Your task to perform on an android device: change the clock display to show seconds Image 0: 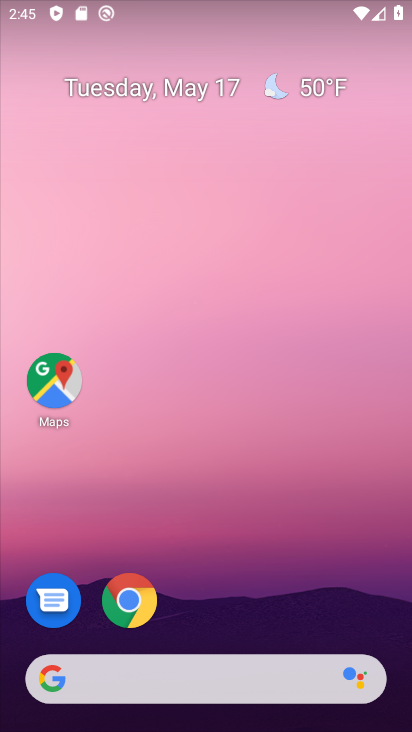
Step 0: drag from (248, 620) to (269, 265)
Your task to perform on an android device: change the clock display to show seconds Image 1: 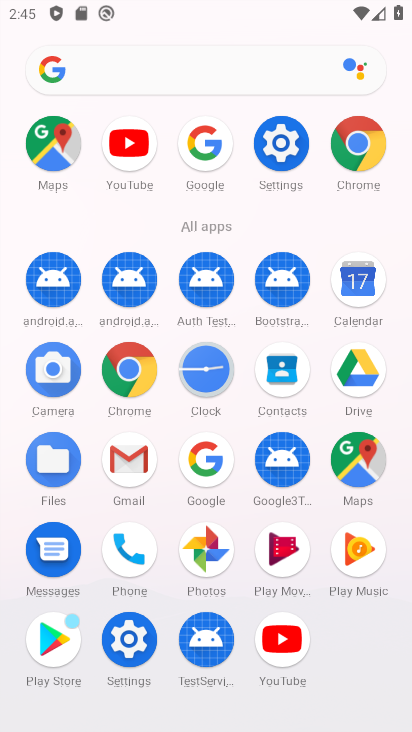
Step 1: click (200, 367)
Your task to perform on an android device: change the clock display to show seconds Image 2: 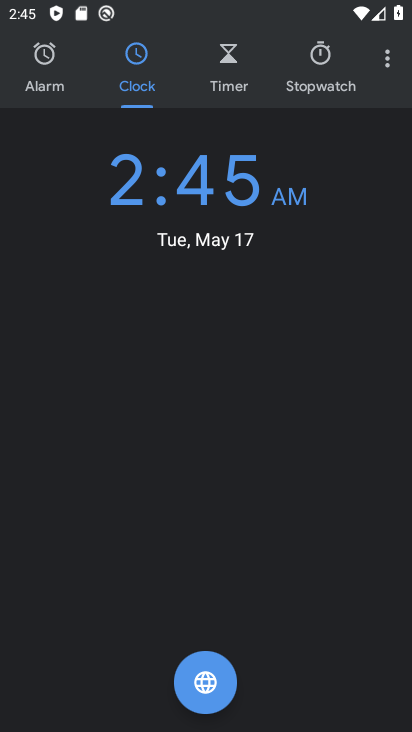
Step 2: click (384, 61)
Your task to perform on an android device: change the clock display to show seconds Image 3: 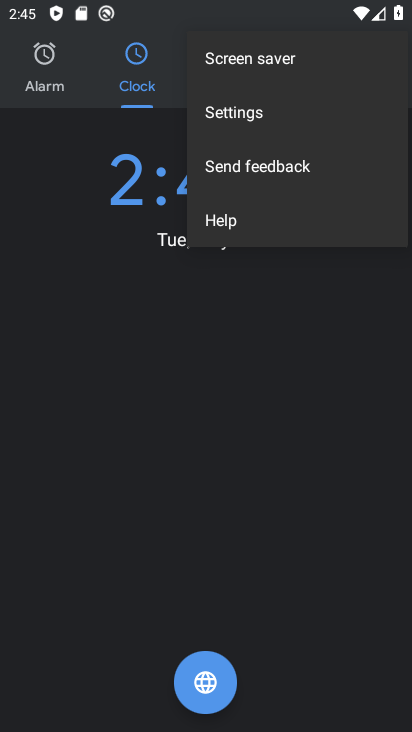
Step 3: click (283, 121)
Your task to perform on an android device: change the clock display to show seconds Image 4: 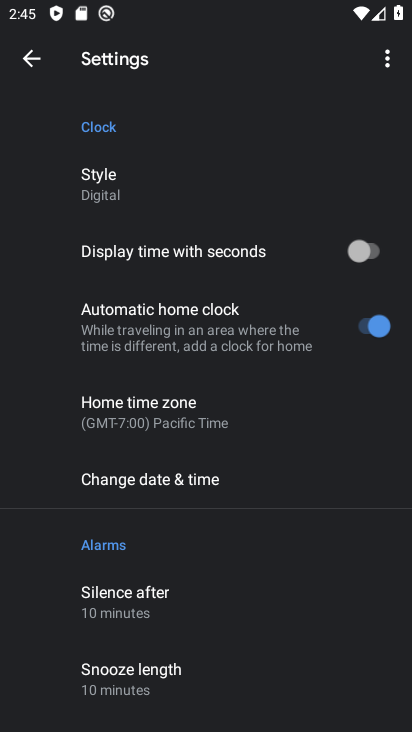
Step 4: click (349, 249)
Your task to perform on an android device: change the clock display to show seconds Image 5: 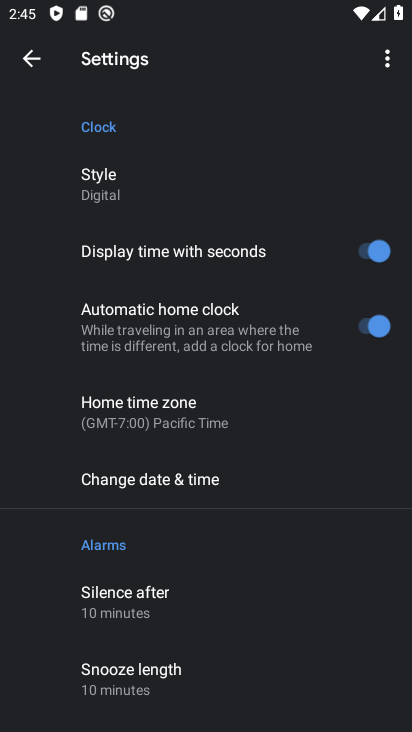
Step 5: task complete